Your task to perform on an android device: change notifications settings Image 0: 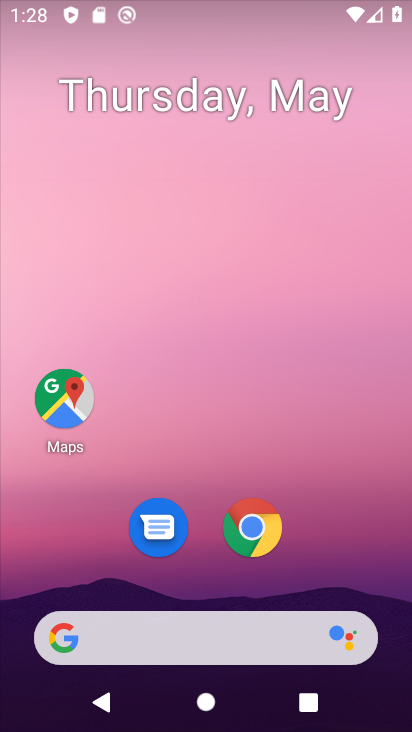
Step 0: drag from (185, 556) to (280, 12)
Your task to perform on an android device: change notifications settings Image 1: 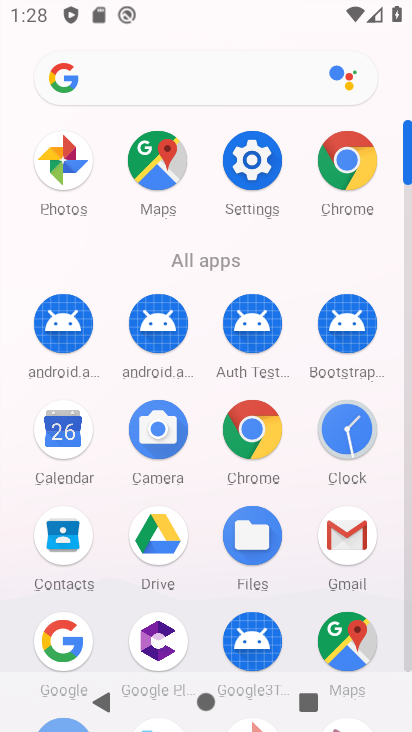
Step 1: click (251, 161)
Your task to perform on an android device: change notifications settings Image 2: 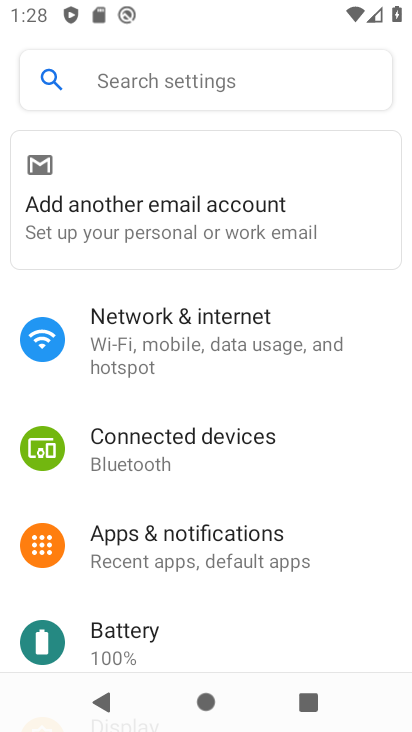
Step 2: drag from (172, 604) to (294, 11)
Your task to perform on an android device: change notifications settings Image 3: 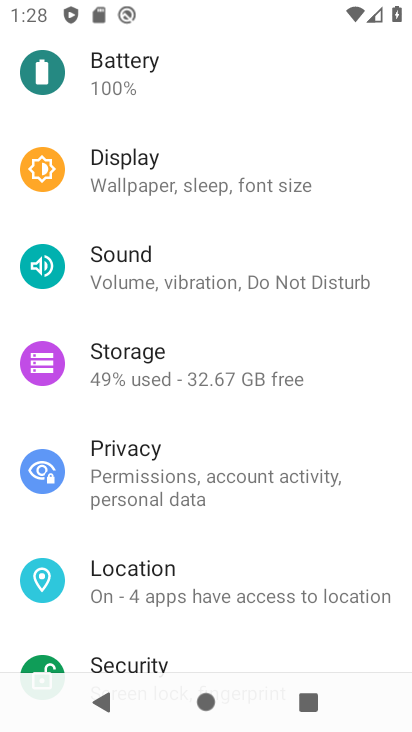
Step 3: drag from (213, 107) to (255, 653)
Your task to perform on an android device: change notifications settings Image 4: 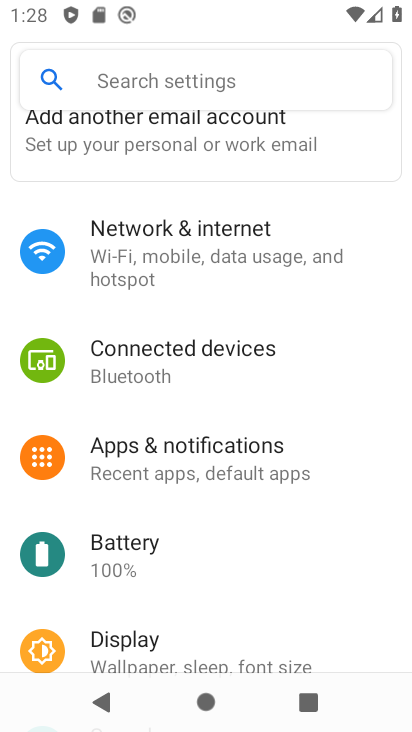
Step 4: click (156, 477)
Your task to perform on an android device: change notifications settings Image 5: 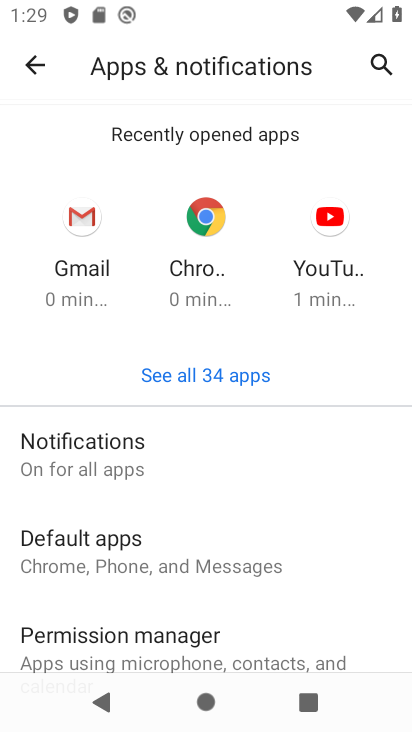
Step 5: click (174, 445)
Your task to perform on an android device: change notifications settings Image 6: 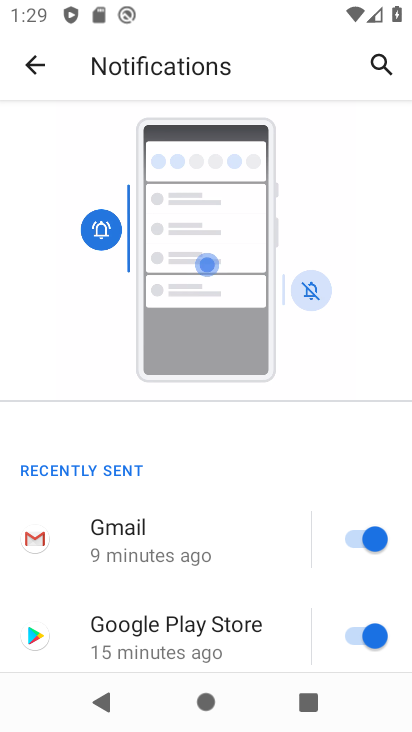
Step 6: drag from (200, 596) to (239, 165)
Your task to perform on an android device: change notifications settings Image 7: 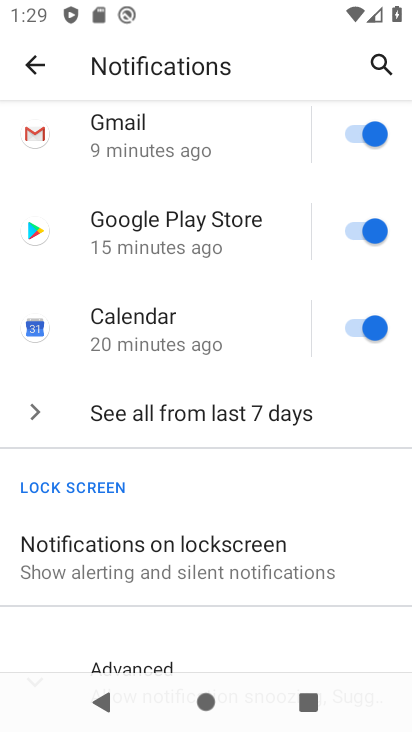
Step 7: drag from (206, 551) to (275, 208)
Your task to perform on an android device: change notifications settings Image 8: 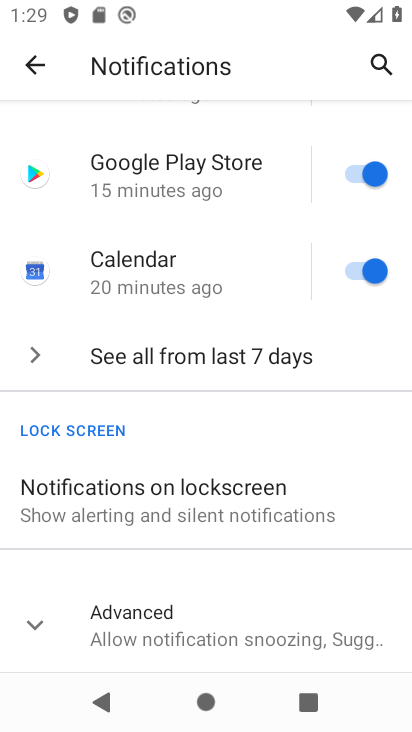
Step 8: drag from (243, 240) to (228, 708)
Your task to perform on an android device: change notifications settings Image 9: 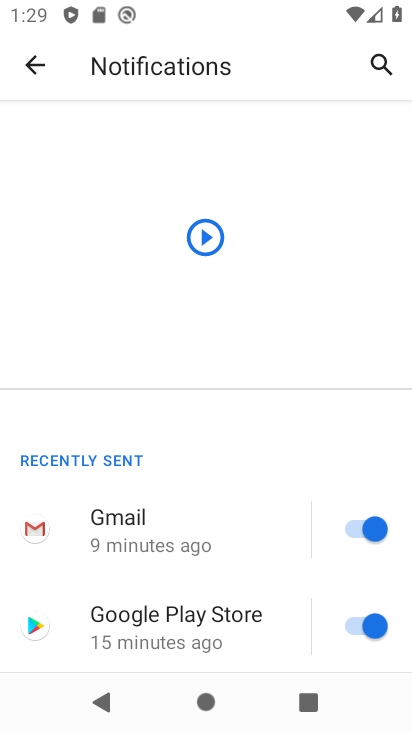
Step 9: click (371, 532)
Your task to perform on an android device: change notifications settings Image 10: 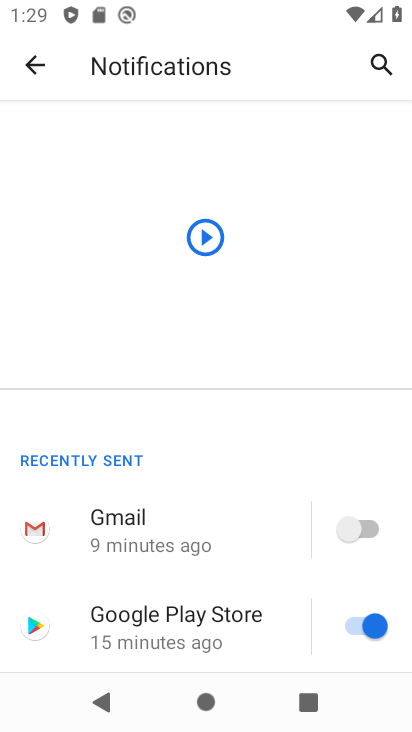
Step 10: task complete